Your task to perform on an android device: Open Amazon Image 0: 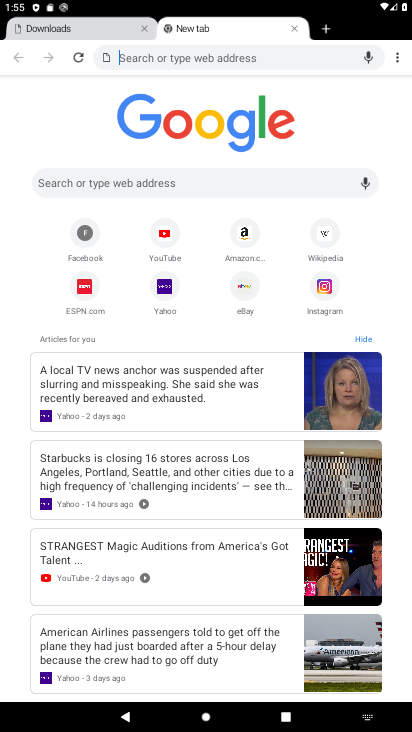
Step 0: click (233, 251)
Your task to perform on an android device: Open Amazon Image 1: 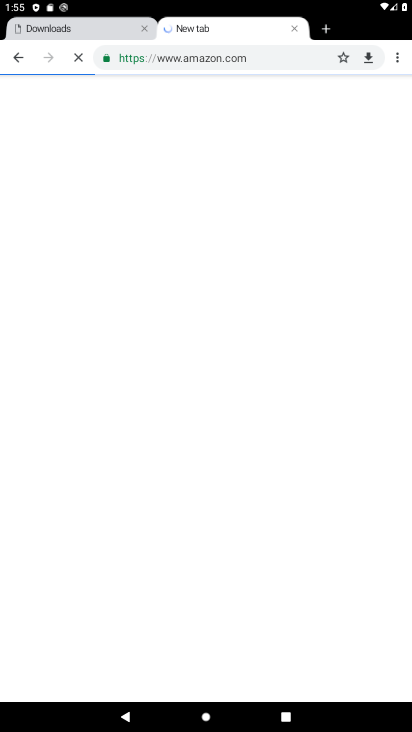
Step 1: task complete